Your task to perform on an android device: check the backup settings in the google photos Image 0: 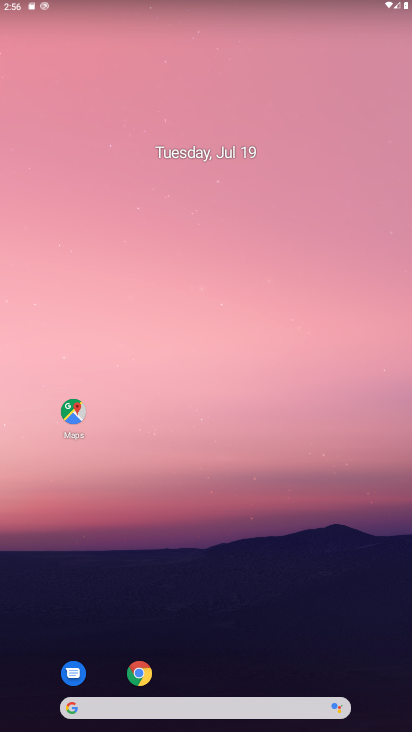
Step 0: drag from (221, 657) to (261, 51)
Your task to perform on an android device: check the backup settings in the google photos Image 1: 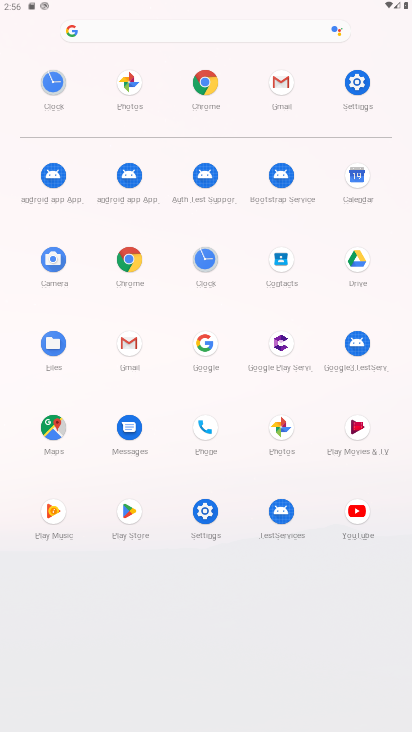
Step 1: click (284, 436)
Your task to perform on an android device: check the backup settings in the google photos Image 2: 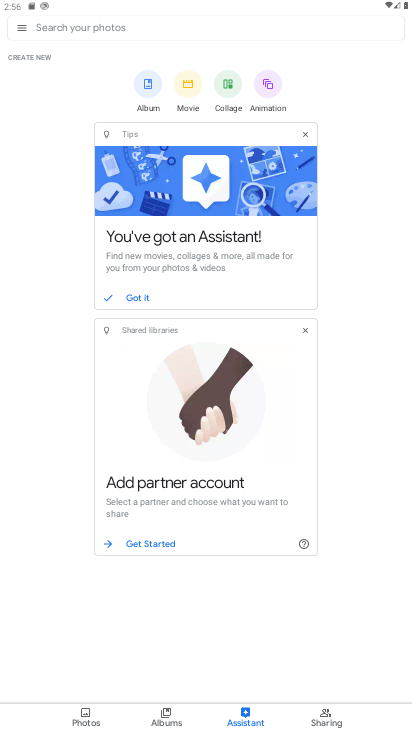
Step 2: click (16, 20)
Your task to perform on an android device: check the backup settings in the google photos Image 3: 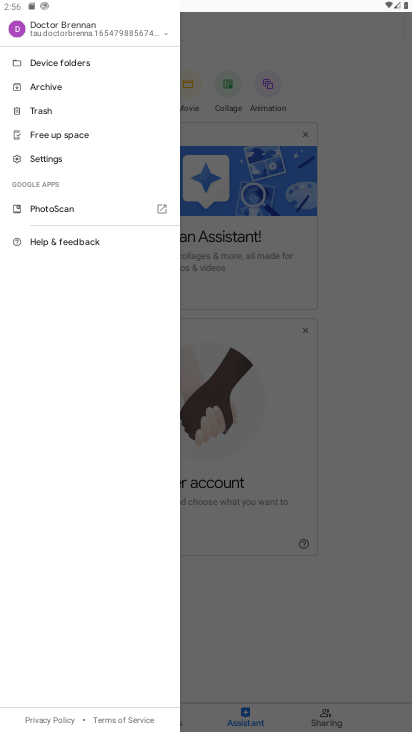
Step 3: click (45, 161)
Your task to perform on an android device: check the backup settings in the google photos Image 4: 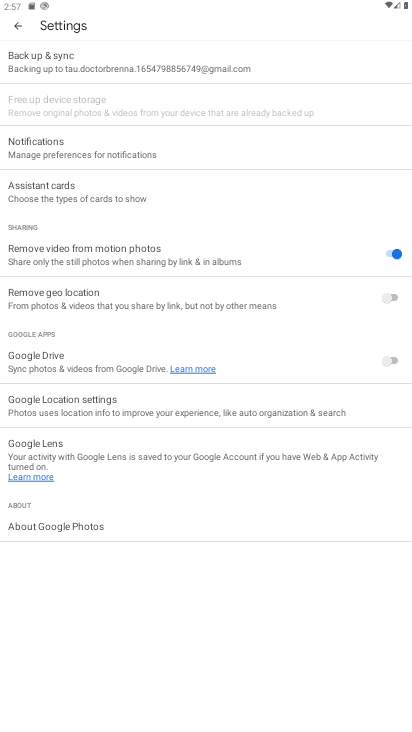
Step 4: click (77, 64)
Your task to perform on an android device: check the backup settings in the google photos Image 5: 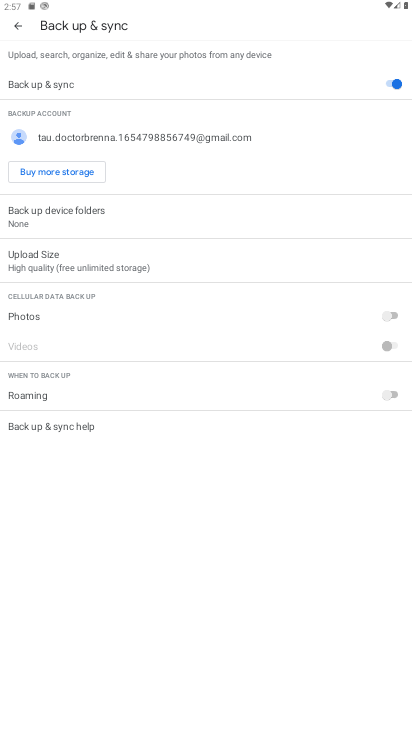
Step 5: task complete